Your task to perform on an android device: empty trash in google photos Image 0: 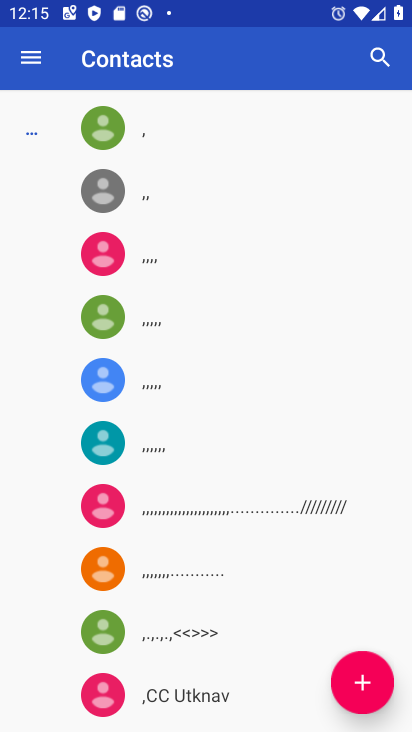
Step 0: press home button
Your task to perform on an android device: empty trash in google photos Image 1: 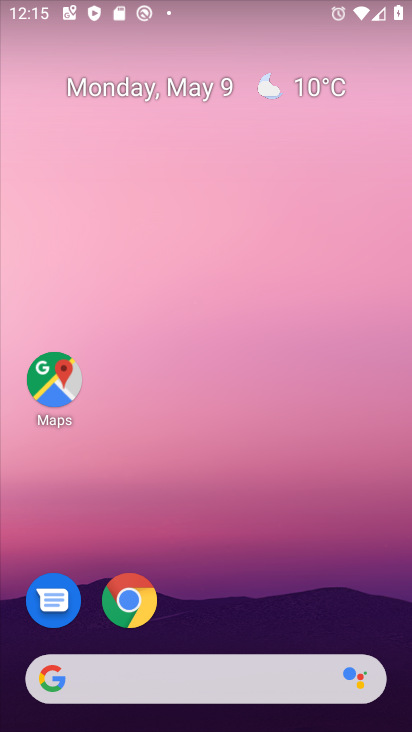
Step 1: drag from (181, 585) to (185, 261)
Your task to perform on an android device: empty trash in google photos Image 2: 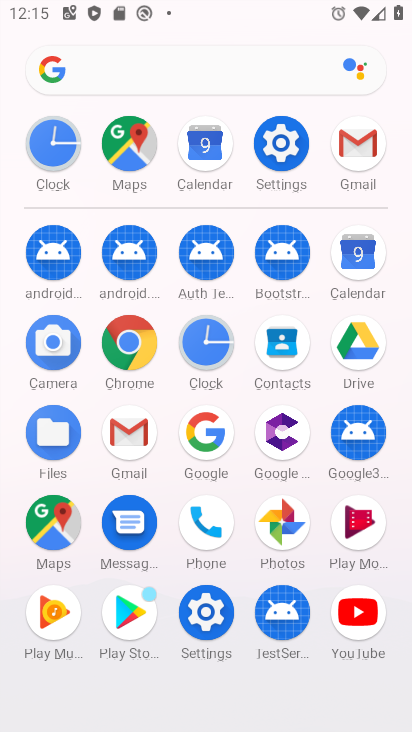
Step 2: click (280, 530)
Your task to perform on an android device: empty trash in google photos Image 3: 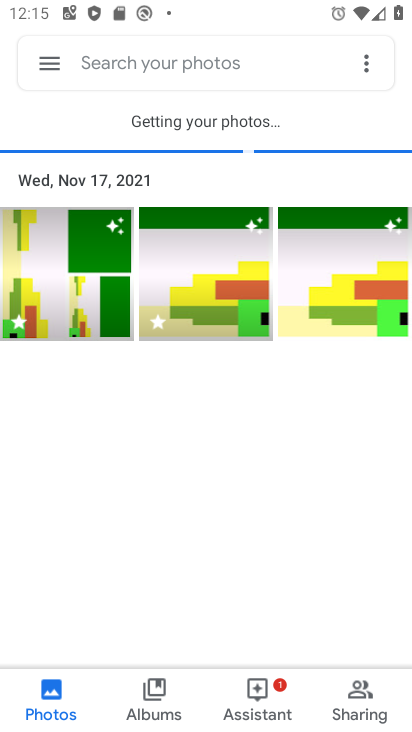
Step 3: click (46, 62)
Your task to perform on an android device: empty trash in google photos Image 4: 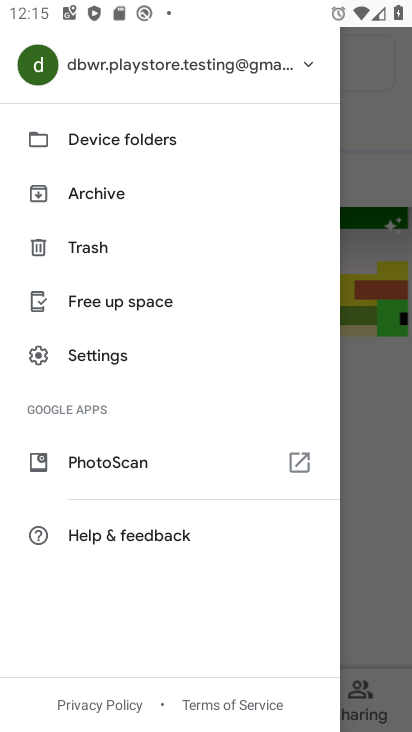
Step 4: click (105, 252)
Your task to perform on an android device: empty trash in google photos Image 5: 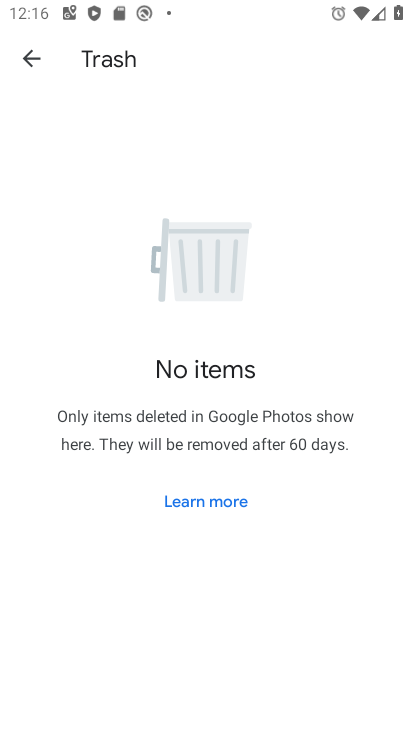
Step 5: task complete